Your task to perform on an android device: set the stopwatch Image 0: 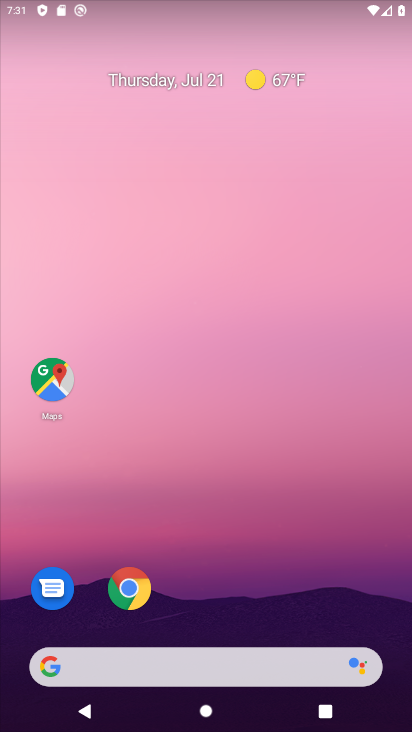
Step 0: drag from (191, 659) to (256, 156)
Your task to perform on an android device: set the stopwatch Image 1: 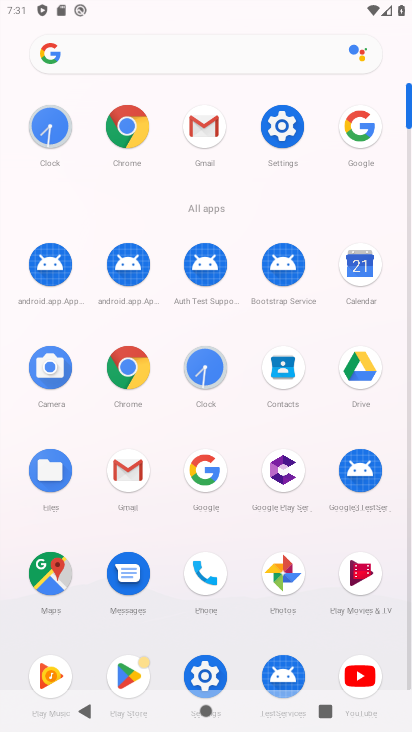
Step 1: click (209, 369)
Your task to perform on an android device: set the stopwatch Image 2: 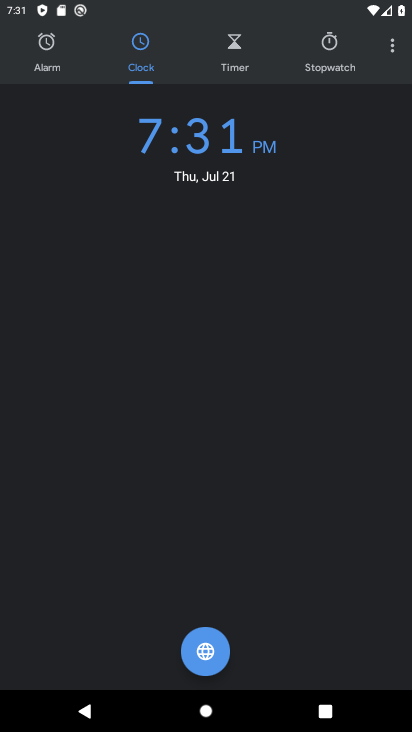
Step 2: click (312, 60)
Your task to perform on an android device: set the stopwatch Image 3: 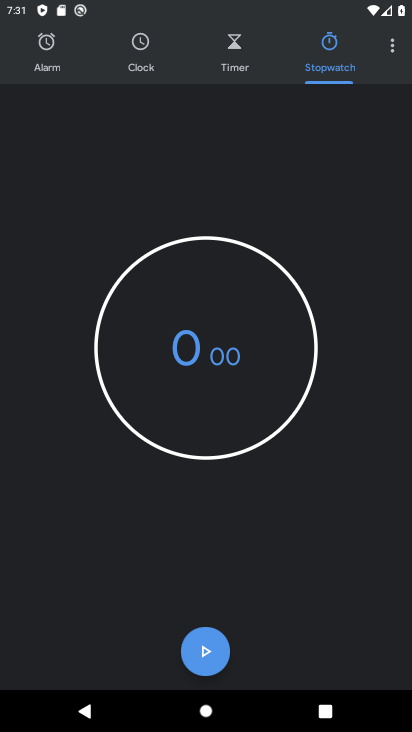
Step 3: click (207, 652)
Your task to perform on an android device: set the stopwatch Image 4: 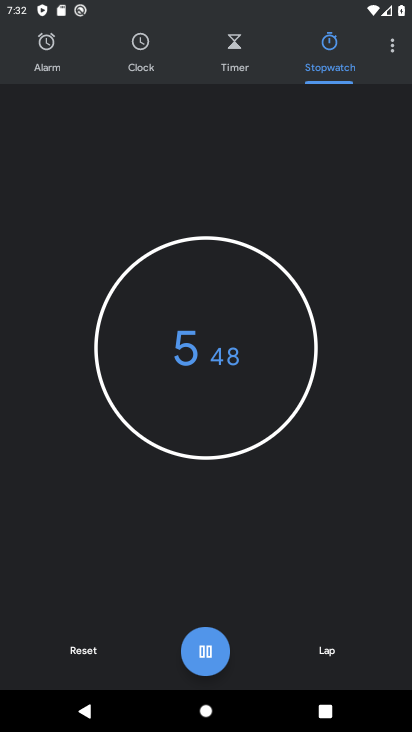
Step 4: click (209, 652)
Your task to perform on an android device: set the stopwatch Image 5: 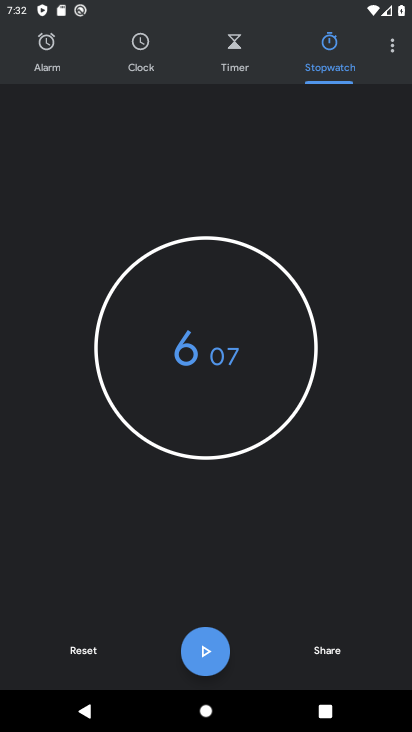
Step 5: task complete